Your task to perform on an android device: toggle location history Image 0: 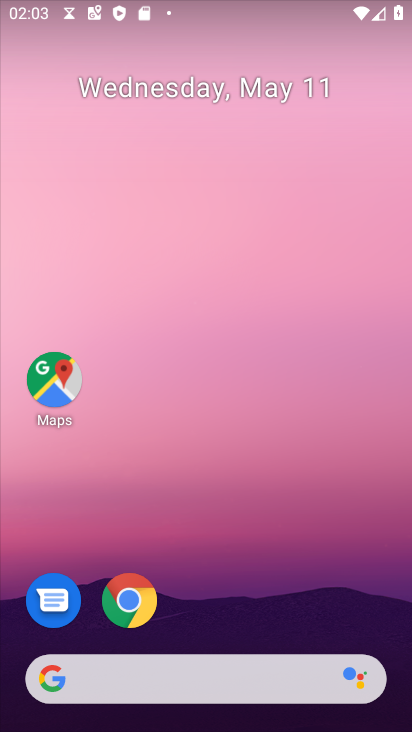
Step 0: click (236, 229)
Your task to perform on an android device: toggle location history Image 1: 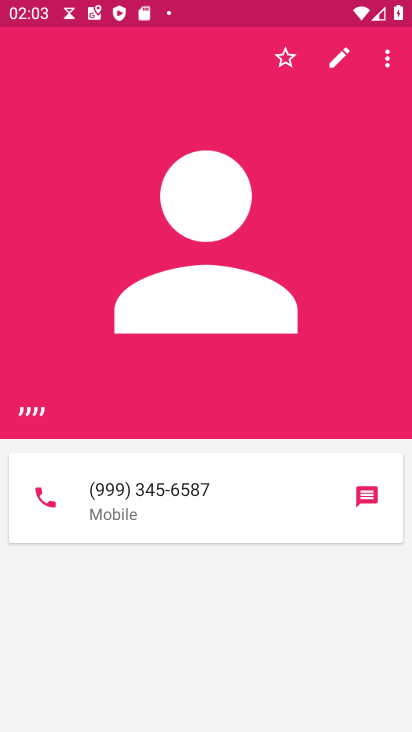
Step 1: press home button
Your task to perform on an android device: toggle location history Image 2: 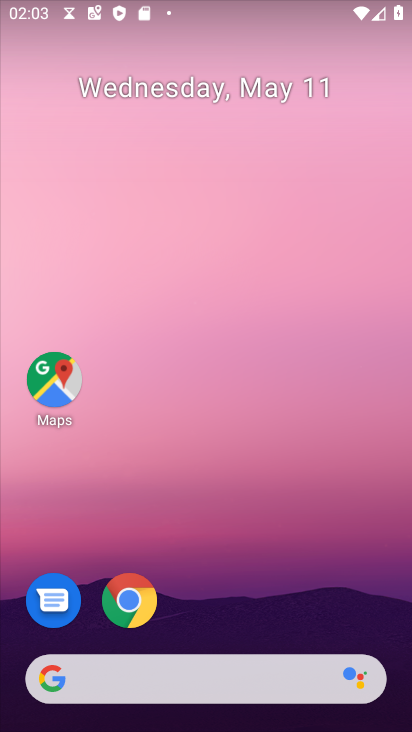
Step 2: click (46, 372)
Your task to perform on an android device: toggle location history Image 3: 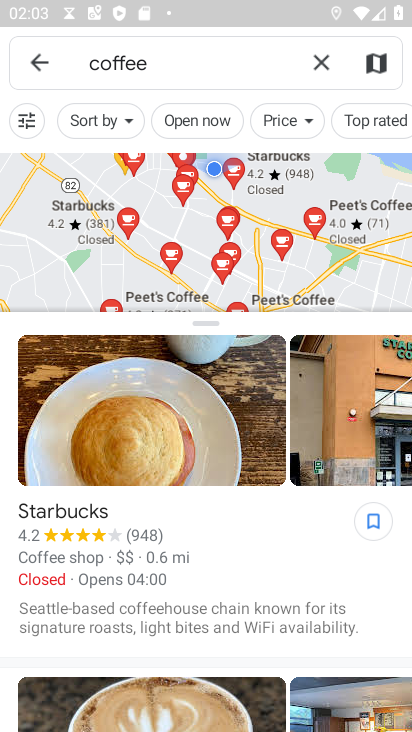
Step 3: click (322, 56)
Your task to perform on an android device: toggle location history Image 4: 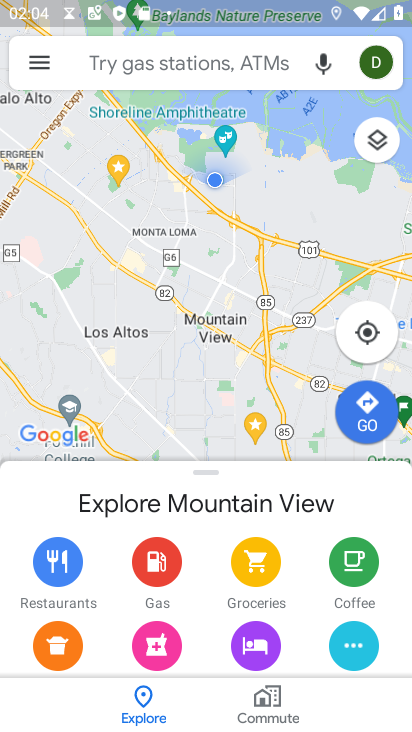
Step 4: click (32, 65)
Your task to perform on an android device: toggle location history Image 5: 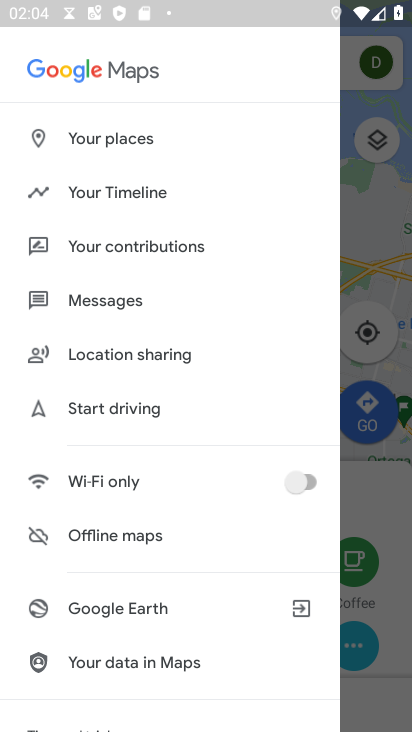
Step 5: click (120, 193)
Your task to perform on an android device: toggle location history Image 6: 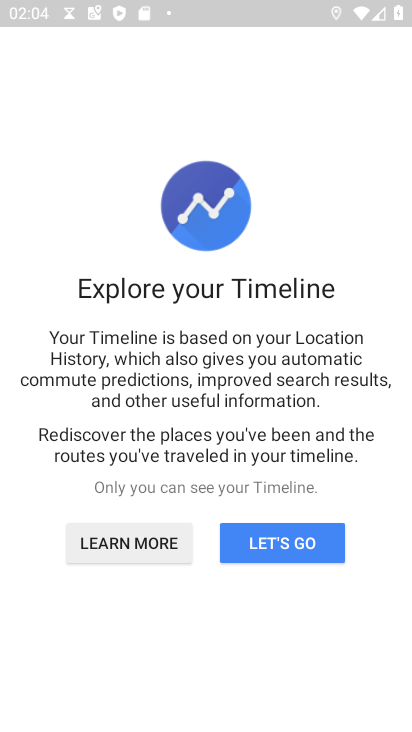
Step 6: click (285, 536)
Your task to perform on an android device: toggle location history Image 7: 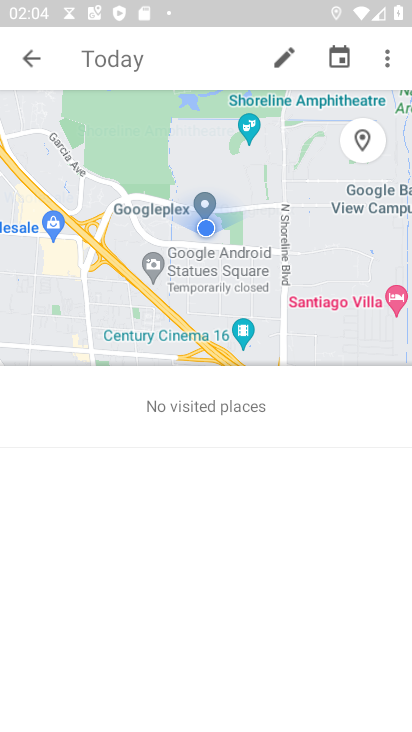
Step 7: click (387, 56)
Your task to perform on an android device: toggle location history Image 8: 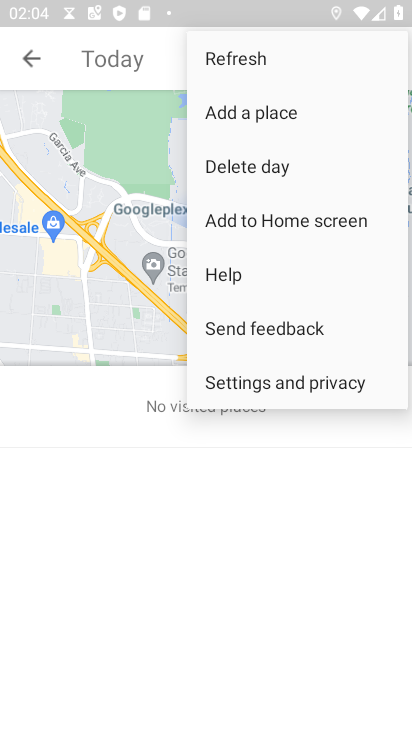
Step 8: click (284, 386)
Your task to perform on an android device: toggle location history Image 9: 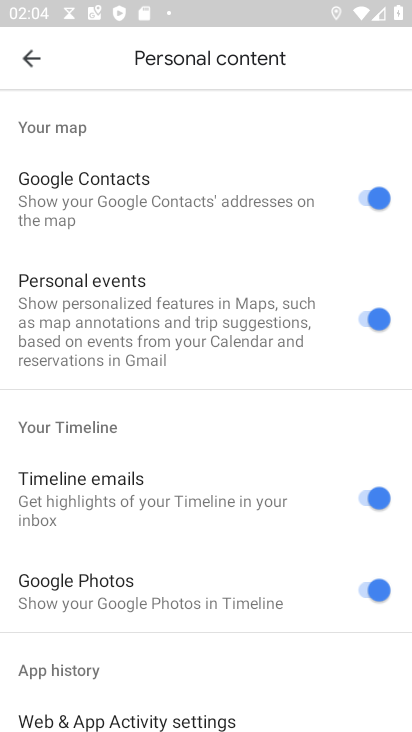
Step 9: drag from (187, 652) to (234, 166)
Your task to perform on an android device: toggle location history Image 10: 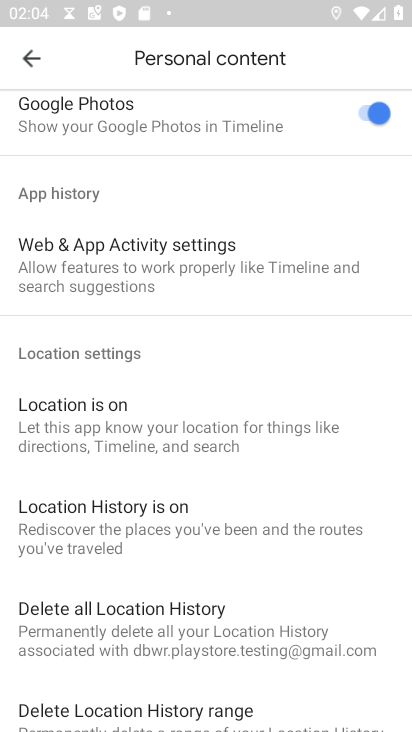
Step 10: click (147, 521)
Your task to perform on an android device: toggle location history Image 11: 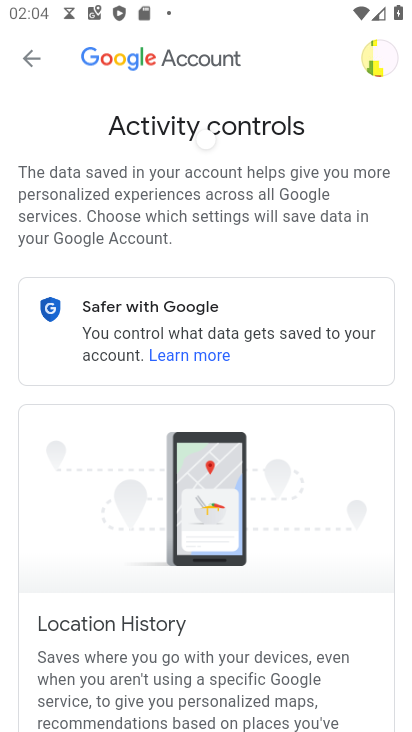
Step 11: drag from (220, 605) to (292, 194)
Your task to perform on an android device: toggle location history Image 12: 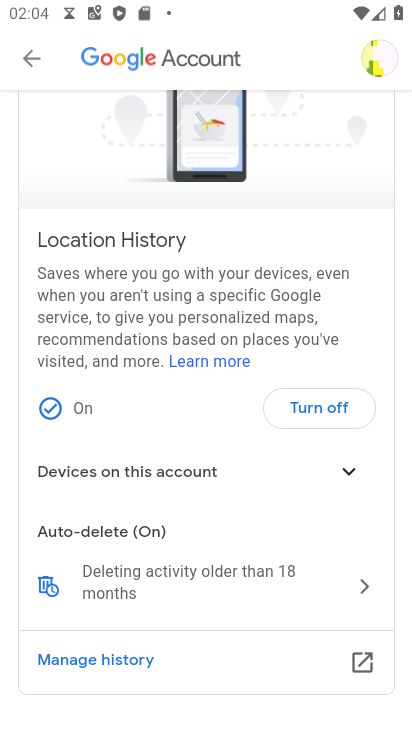
Step 12: click (311, 410)
Your task to perform on an android device: toggle location history Image 13: 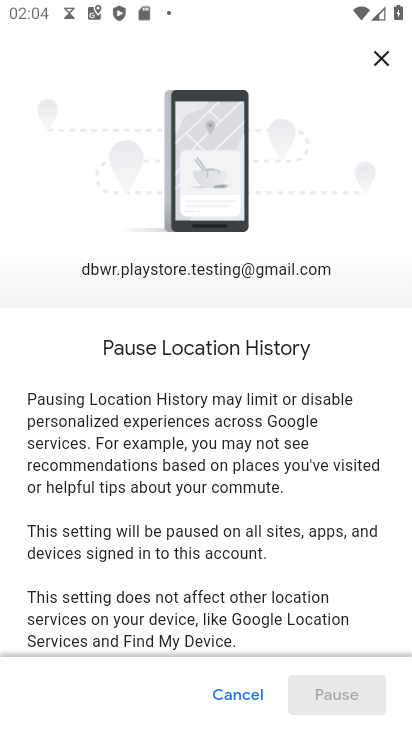
Step 13: task complete